Your task to perform on an android device: open the mobile data screen to see how much data has been used Image 0: 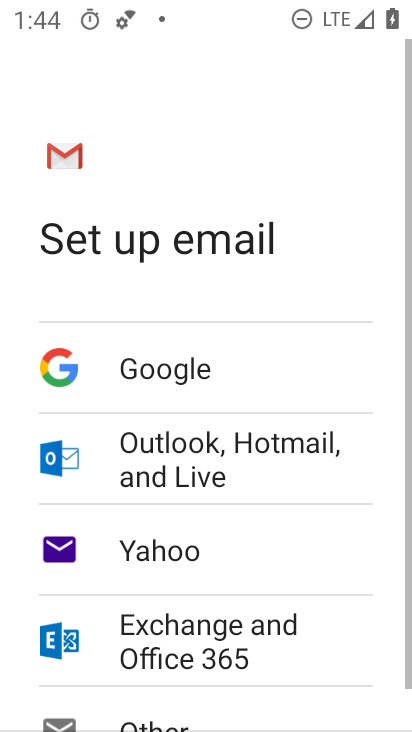
Step 0: press home button
Your task to perform on an android device: open the mobile data screen to see how much data has been used Image 1: 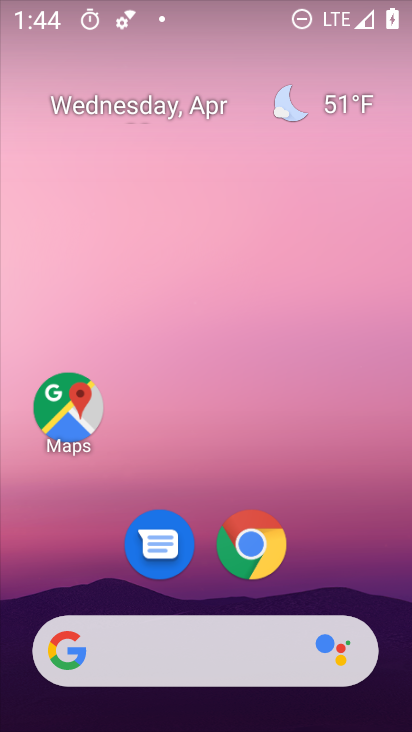
Step 1: drag from (353, 560) to (345, 176)
Your task to perform on an android device: open the mobile data screen to see how much data has been used Image 2: 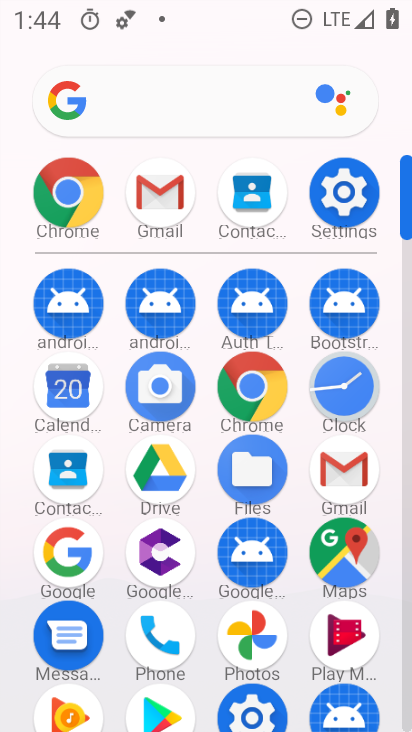
Step 2: click (334, 199)
Your task to perform on an android device: open the mobile data screen to see how much data has been used Image 3: 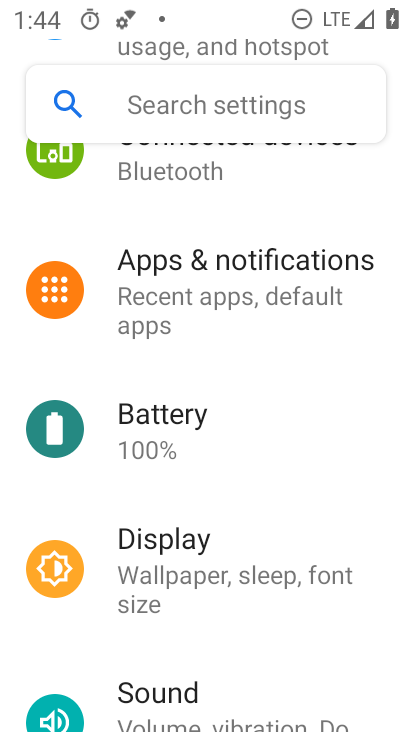
Step 3: drag from (356, 659) to (355, 526)
Your task to perform on an android device: open the mobile data screen to see how much data has been used Image 4: 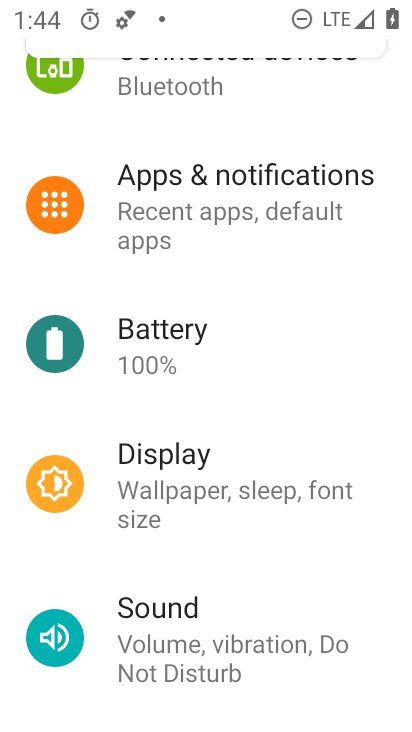
Step 4: drag from (374, 616) to (372, 487)
Your task to perform on an android device: open the mobile data screen to see how much data has been used Image 5: 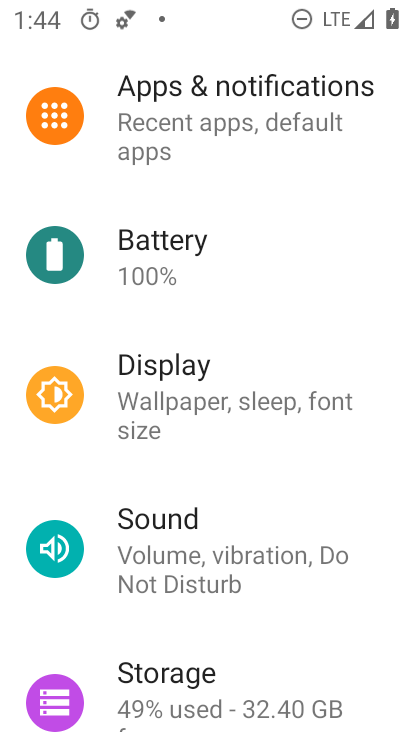
Step 5: drag from (371, 653) to (382, 485)
Your task to perform on an android device: open the mobile data screen to see how much data has been used Image 6: 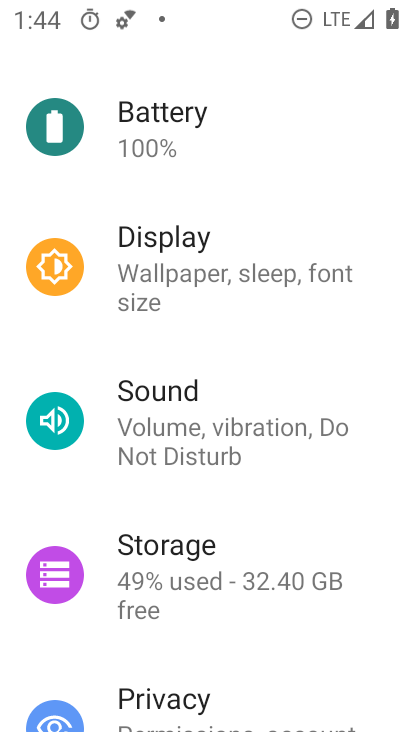
Step 6: drag from (383, 660) to (382, 506)
Your task to perform on an android device: open the mobile data screen to see how much data has been used Image 7: 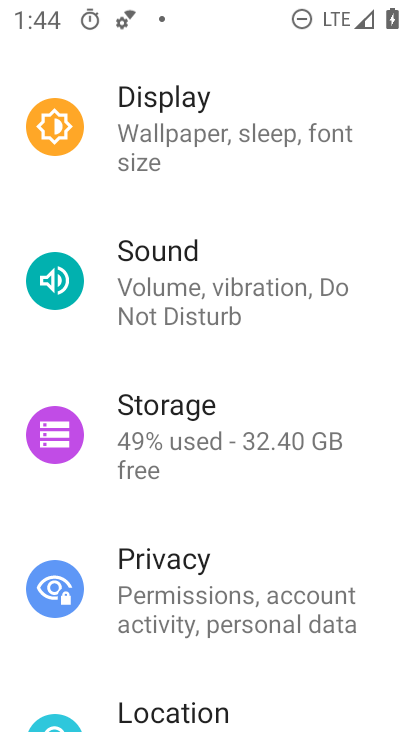
Step 7: drag from (363, 683) to (365, 462)
Your task to perform on an android device: open the mobile data screen to see how much data has been used Image 8: 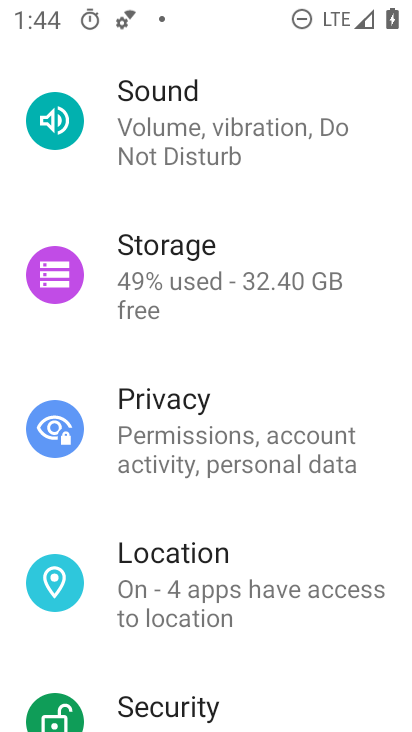
Step 8: drag from (349, 654) to (377, 485)
Your task to perform on an android device: open the mobile data screen to see how much data has been used Image 9: 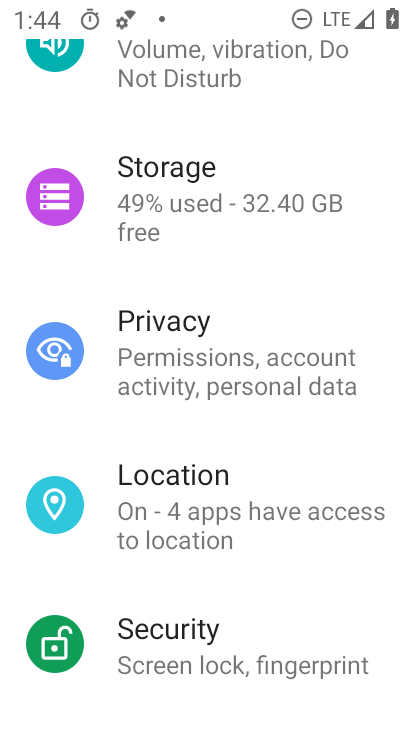
Step 9: drag from (360, 691) to (382, 448)
Your task to perform on an android device: open the mobile data screen to see how much data has been used Image 10: 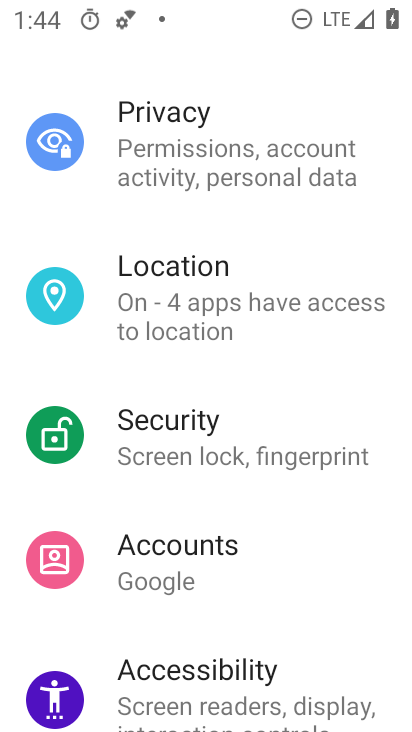
Step 10: drag from (378, 357) to (383, 478)
Your task to perform on an android device: open the mobile data screen to see how much data has been used Image 11: 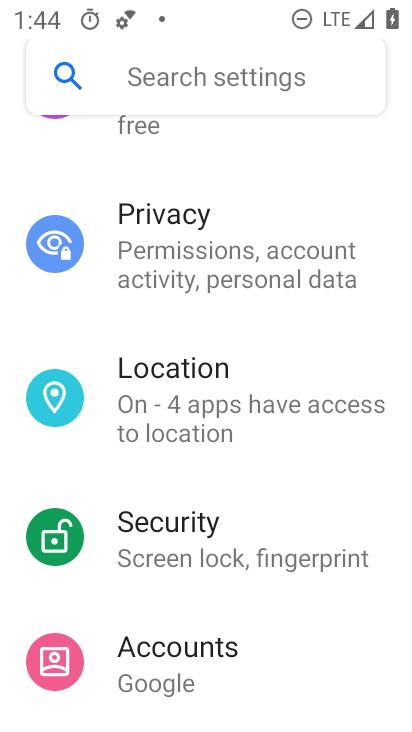
Step 11: drag from (392, 328) to (386, 494)
Your task to perform on an android device: open the mobile data screen to see how much data has been used Image 12: 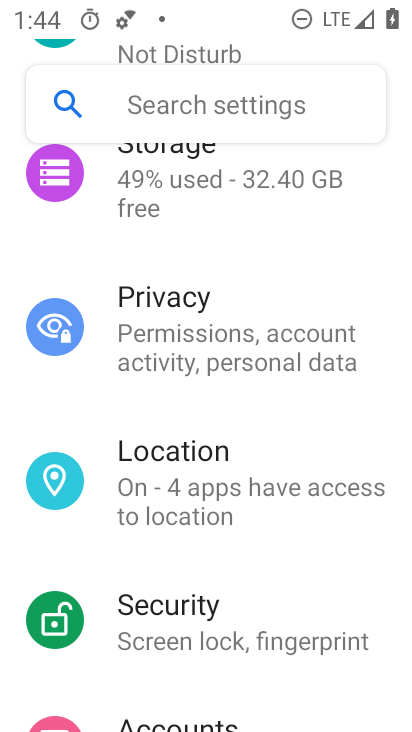
Step 12: drag from (371, 272) to (369, 423)
Your task to perform on an android device: open the mobile data screen to see how much data has been used Image 13: 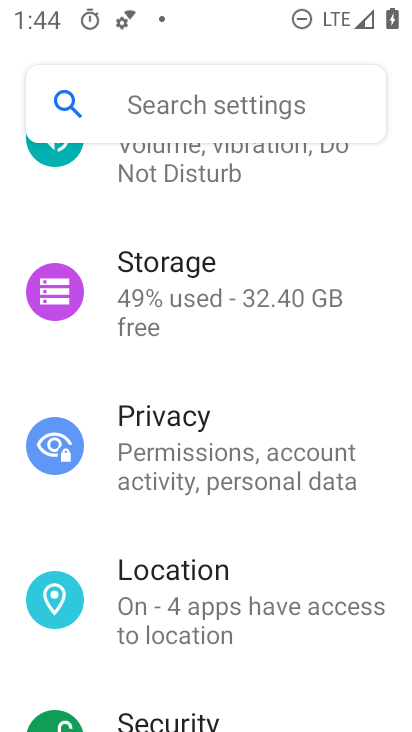
Step 13: drag from (381, 251) to (382, 406)
Your task to perform on an android device: open the mobile data screen to see how much data has been used Image 14: 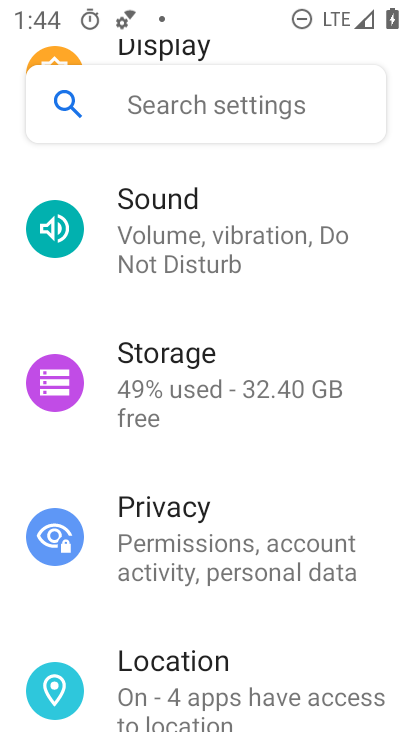
Step 14: drag from (379, 261) to (379, 416)
Your task to perform on an android device: open the mobile data screen to see how much data has been used Image 15: 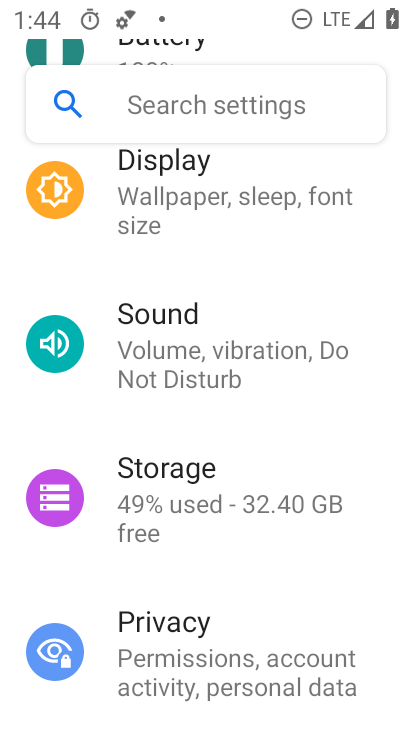
Step 15: drag from (371, 227) to (366, 398)
Your task to perform on an android device: open the mobile data screen to see how much data has been used Image 16: 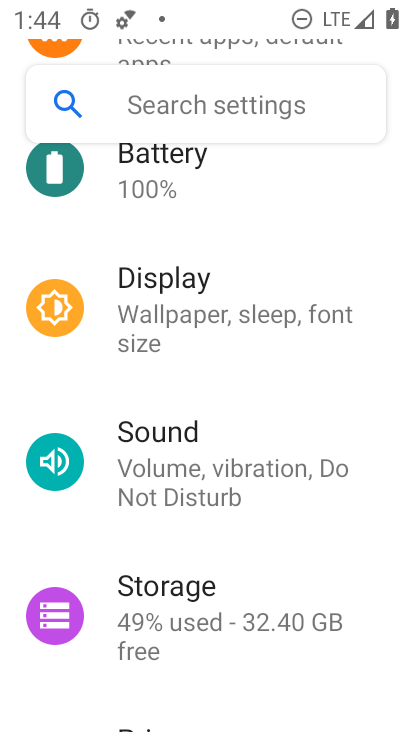
Step 16: drag from (369, 217) to (363, 401)
Your task to perform on an android device: open the mobile data screen to see how much data has been used Image 17: 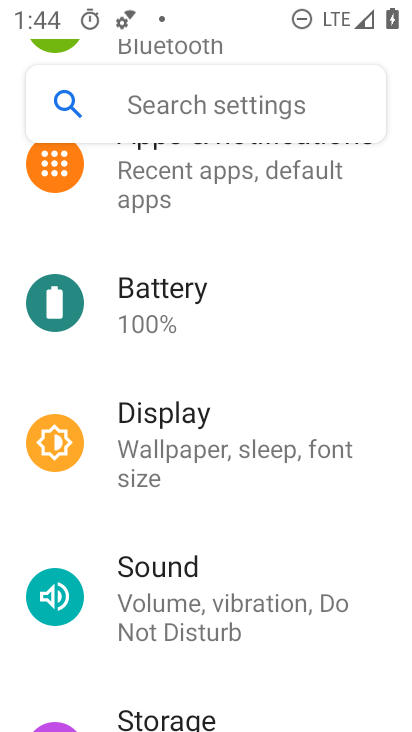
Step 17: drag from (365, 203) to (360, 390)
Your task to perform on an android device: open the mobile data screen to see how much data has been used Image 18: 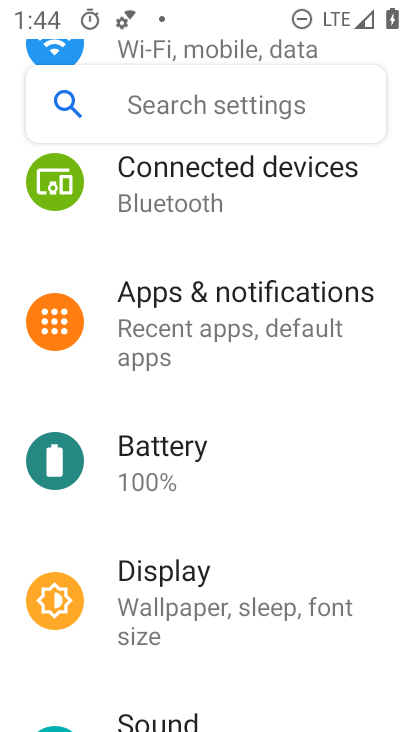
Step 18: drag from (383, 217) to (374, 404)
Your task to perform on an android device: open the mobile data screen to see how much data has been used Image 19: 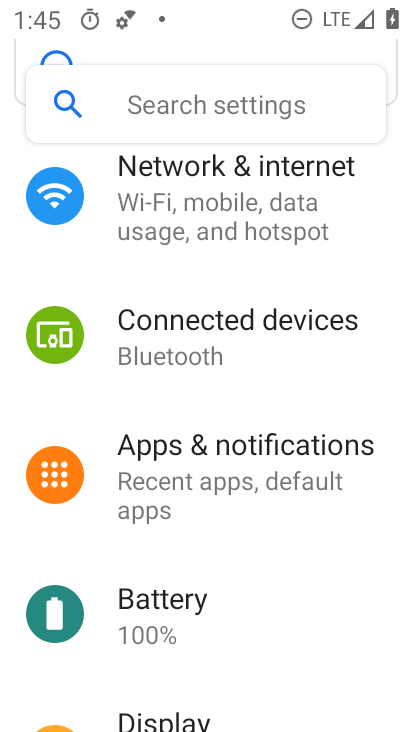
Step 19: drag from (382, 178) to (382, 365)
Your task to perform on an android device: open the mobile data screen to see how much data has been used Image 20: 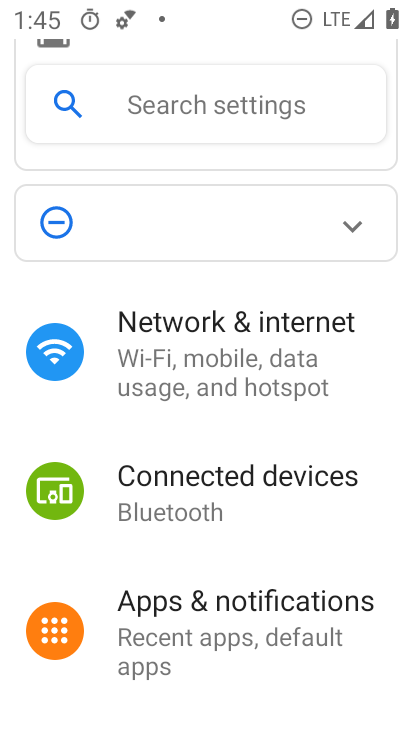
Step 20: click (215, 369)
Your task to perform on an android device: open the mobile data screen to see how much data has been used Image 21: 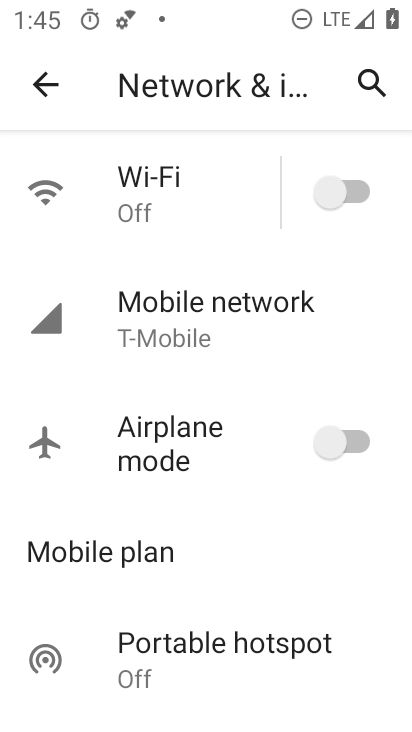
Step 21: click (221, 308)
Your task to perform on an android device: open the mobile data screen to see how much data has been used Image 22: 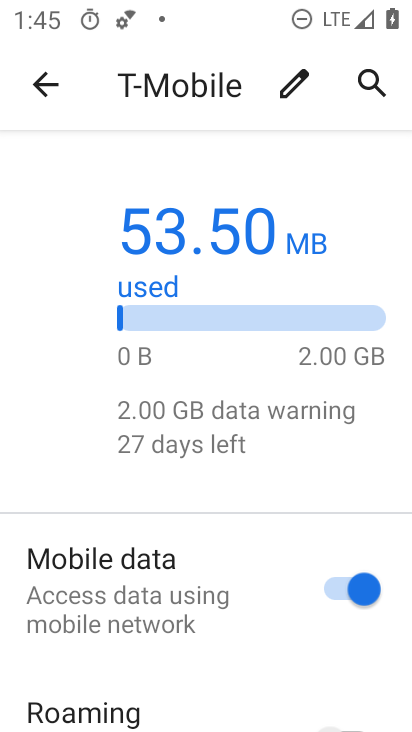
Step 22: drag from (251, 549) to (273, 348)
Your task to perform on an android device: open the mobile data screen to see how much data has been used Image 23: 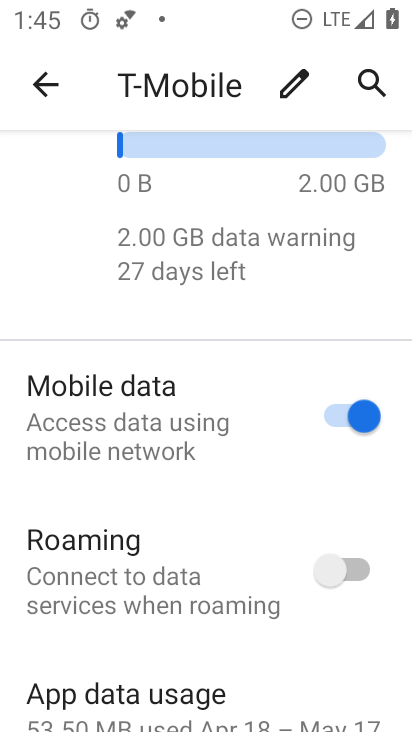
Step 23: drag from (247, 632) to (252, 357)
Your task to perform on an android device: open the mobile data screen to see how much data has been used Image 24: 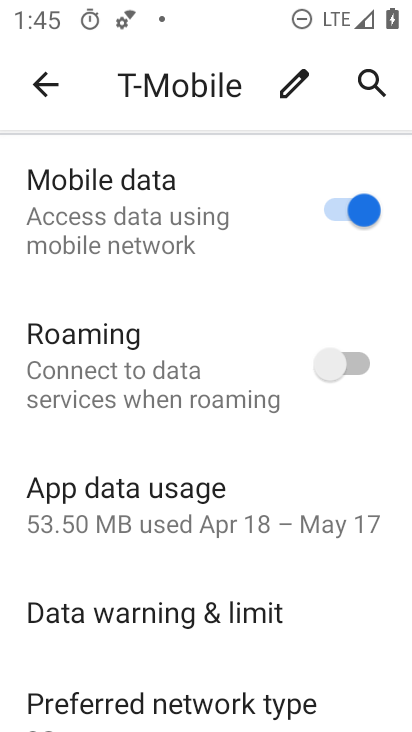
Step 24: click (155, 495)
Your task to perform on an android device: open the mobile data screen to see how much data has been used Image 25: 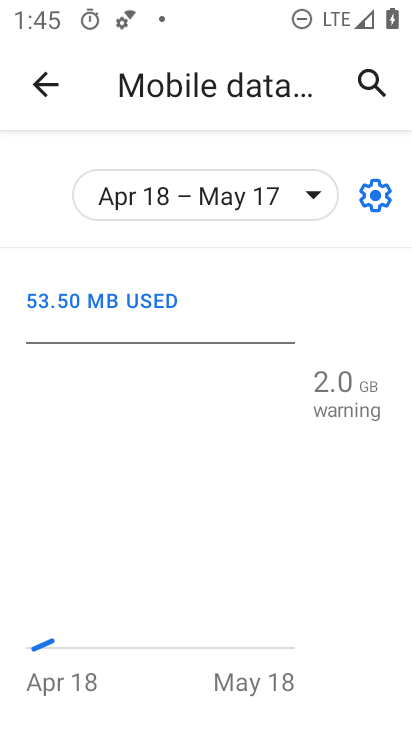
Step 25: task complete